Your task to perform on an android device: turn on sleep mode Image 0: 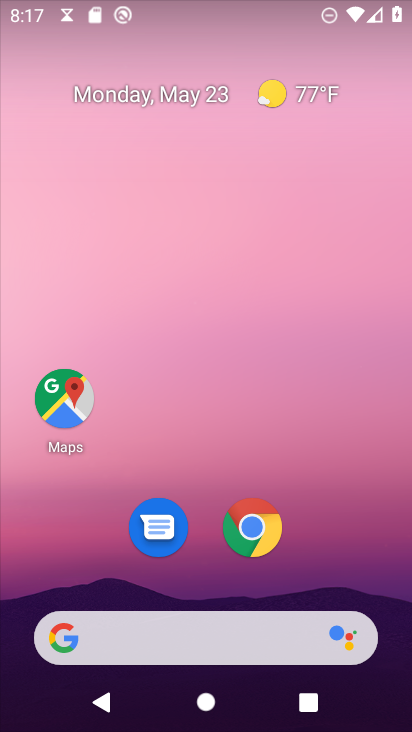
Step 0: drag from (270, 667) to (275, 247)
Your task to perform on an android device: turn on sleep mode Image 1: 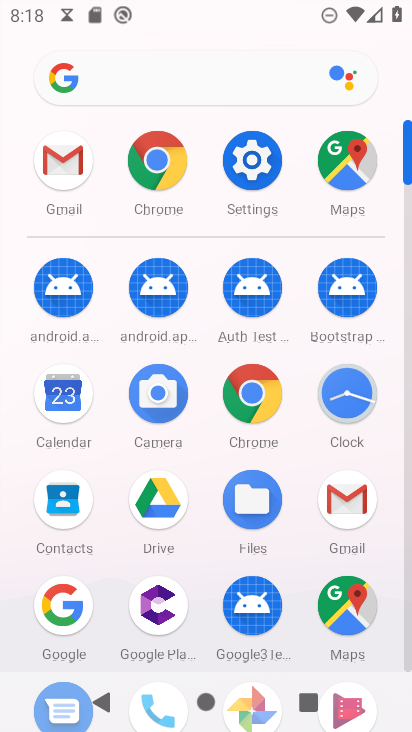
Step 1: click (251, 174)
Your task to perform on an android device: turn on sleep mode Image 2: 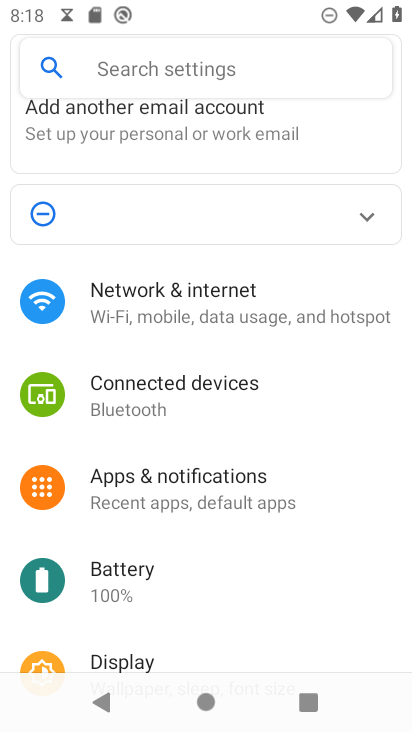
Step 2: click (150, 59)
Your task to perform on an android device: turn on sleep mode Image 3: 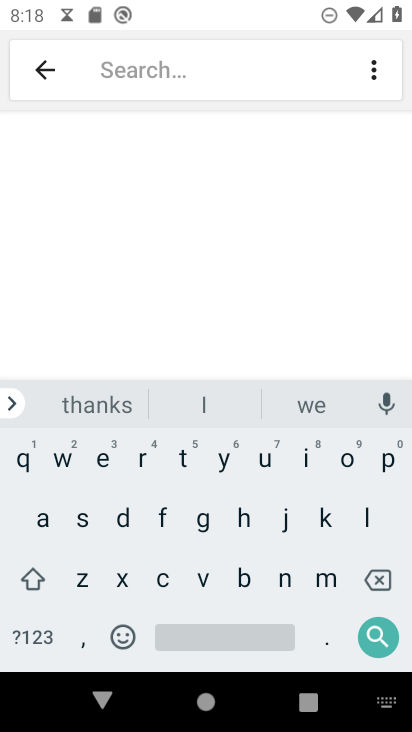
Step 3: click (77, 524)
Your task to perform on an android device: turn on sleep mode Image 4: 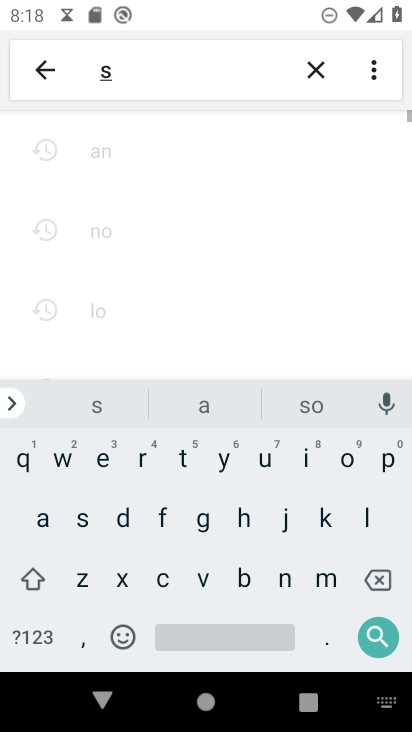
Step 4: click (364, 522)
Your task to perform on an android device: turn on sleep mode Image 5: 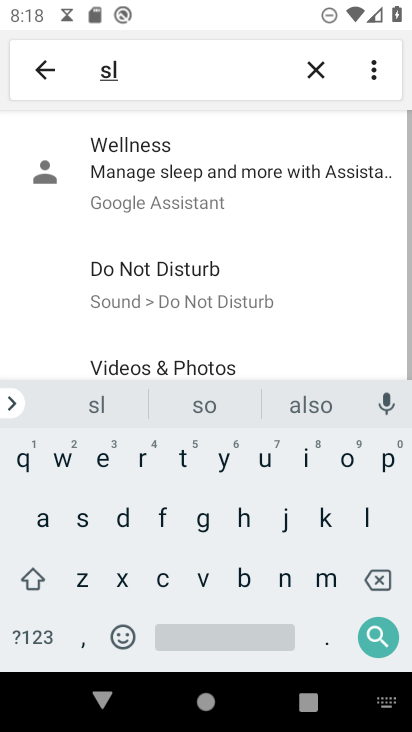
Step 5: click (179, 167)
Your task to perform on an android device: turn on sleep mode Image 6: 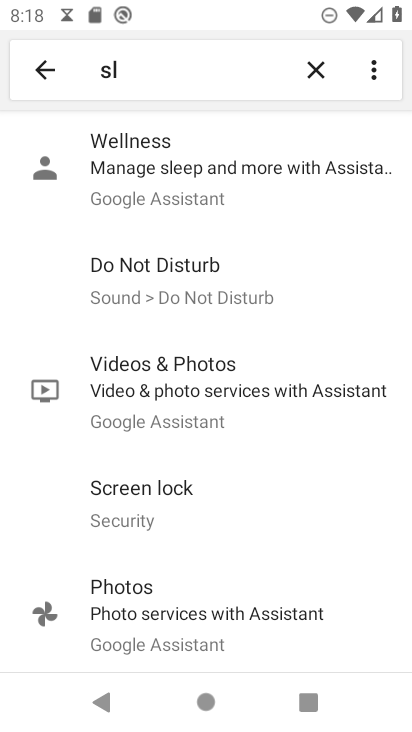
Step 6: click (181, 167)
Your task to perform on an android device: turn on sleep mode Image 7: 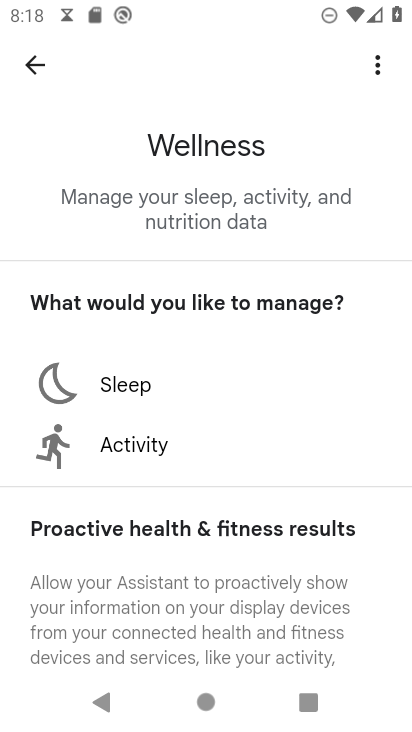
Step 7: click (121, 385)
Your task to perform on an android device: turn on sleep mode Image 8: 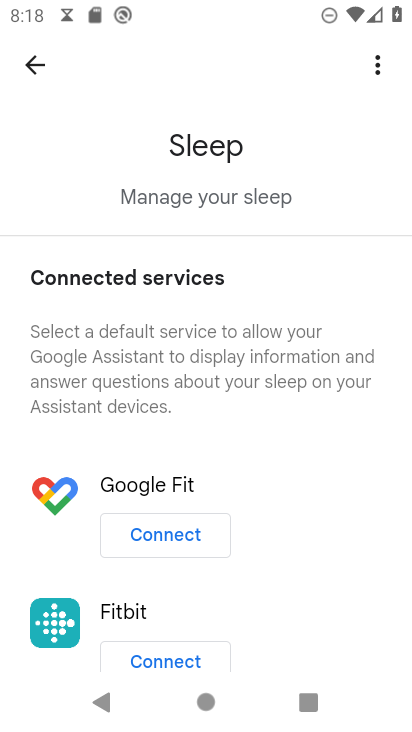
Step 8: task complete